Your task to perform on an android device: Open Reddit.com Image 0: 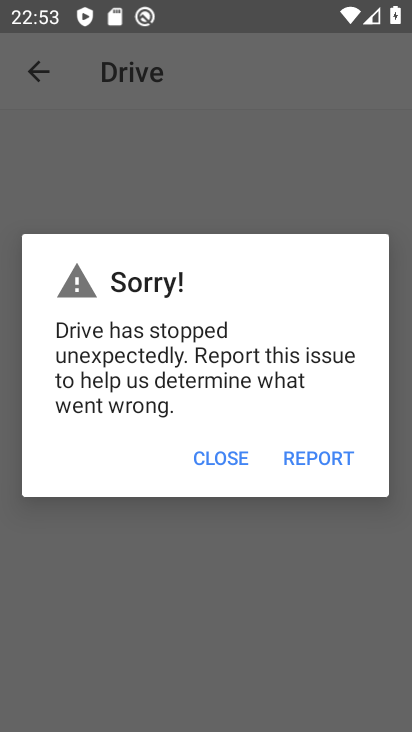
Step 0: press home button
Your task to perform on an android device: Open Reddit.com Image 1: 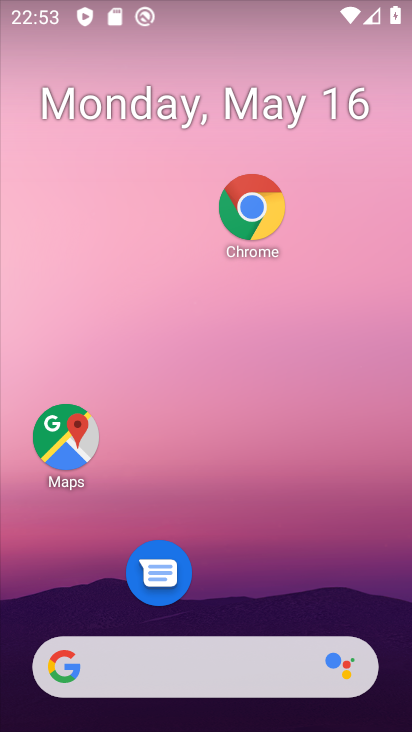
Step 1: drag from (252, 637) to (317, 248)
Your task to perform on an android device: Open Reddit.com Image 2: 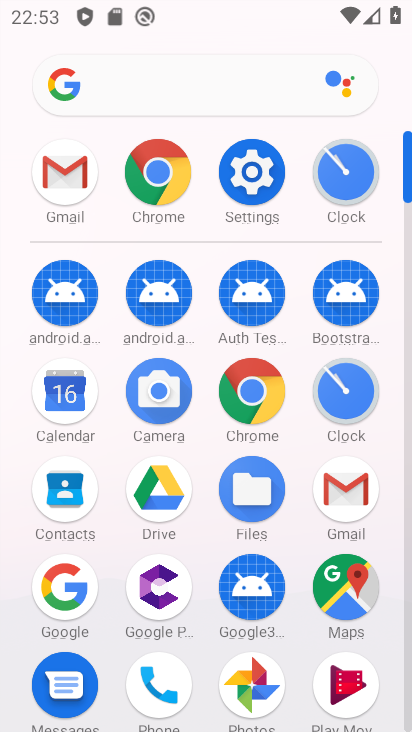
Step 2: click (246, 398)
Your task to perform on an android device: Open Reddit.com Image 3: 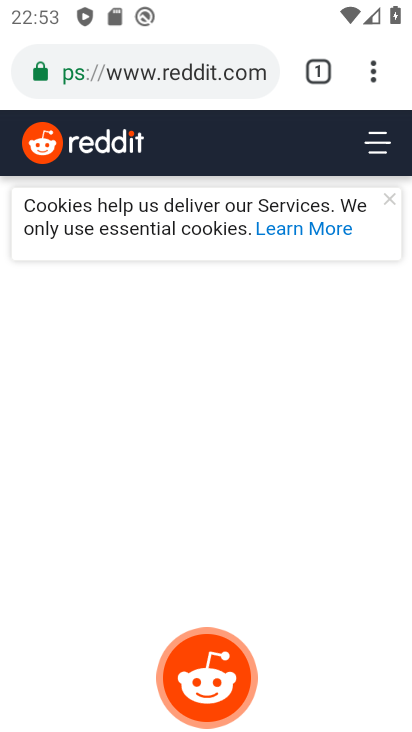
Step 3: task complete